Your task to perform on an android device: turn off data saver in the chrome app Image 0: 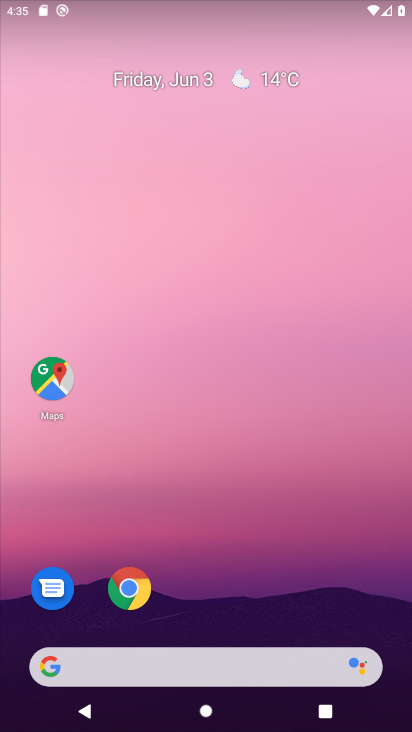
Step 0: drag from (294, 311) to (282, 11)
Your task to perform on an android device: turn off data saver in the chrome app Image 1: 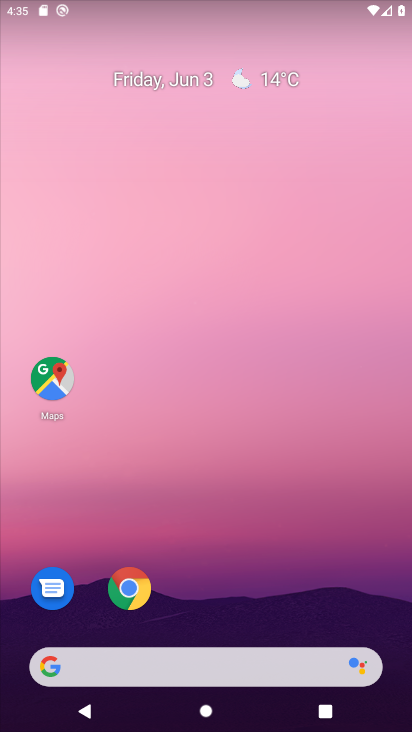
Step 1: drag from (245, 545) to (223, 33)
Your task to perform on an android device: turn off data saver in the chrome app Image 2: 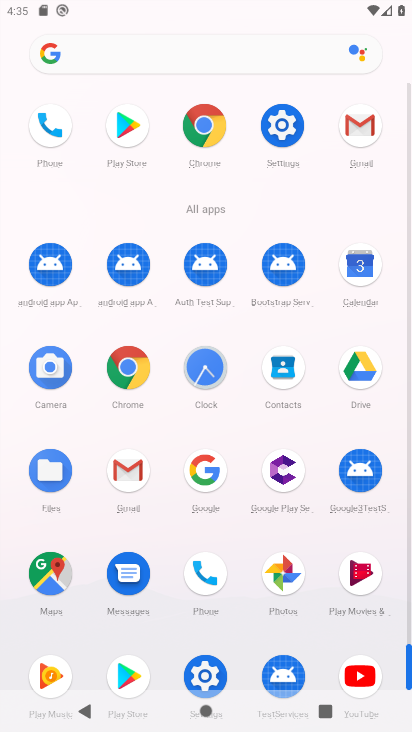
Step 2: click (125, 366)
Your task to perform on an android device: turn off data saver in the chrome app Image 3: 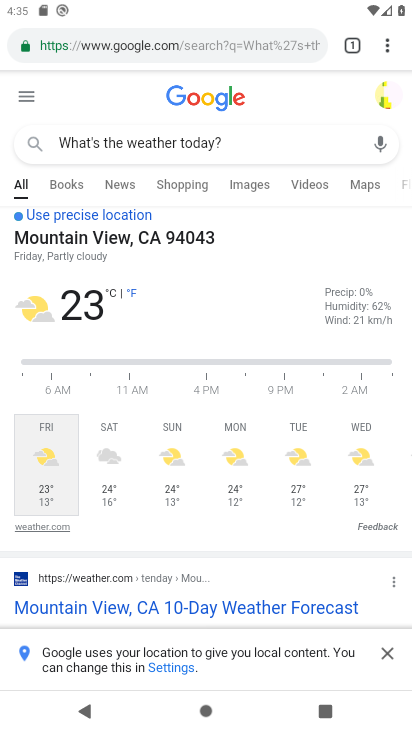
Step 3: drag from (386, 47) to (226, 505)
Your task to perform on an android device: turn off data saver in the chrome app Image 4: 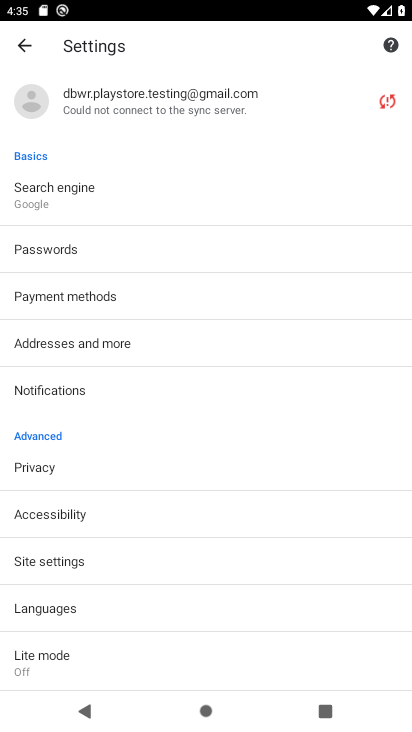
Step 4: drag from (195, 627) to (220, 199)
Your task to perform on an android device: turn off data saver in the chrome app Image 5: 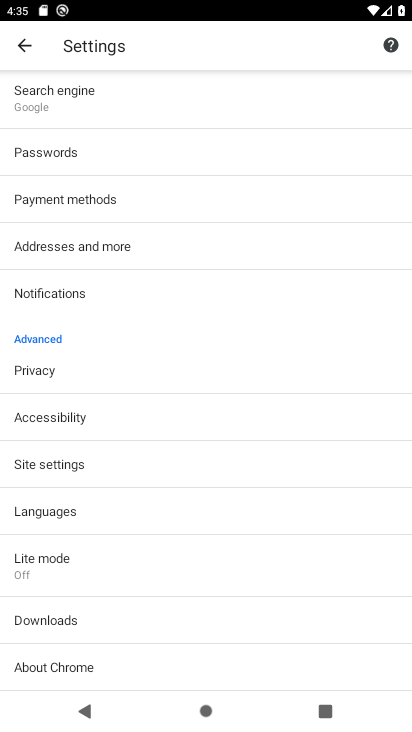
Step 5: click (72, 568)
Your task to perform on an android device: turn off data saver in the chrome app Image 6: 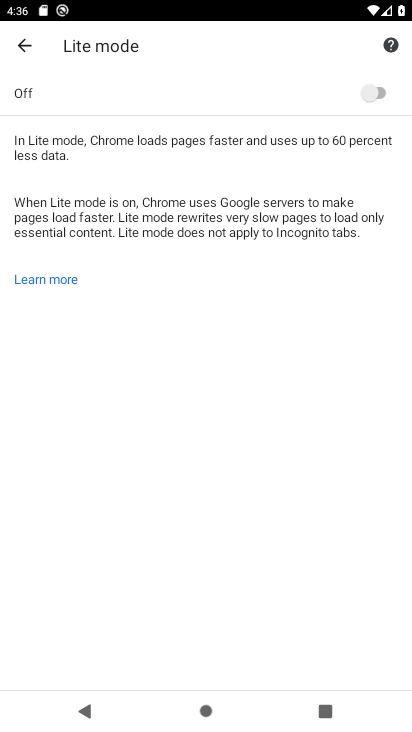
Step 6: task complete